Your task to perform on an android device: add a contact in the contacts app Image 0: 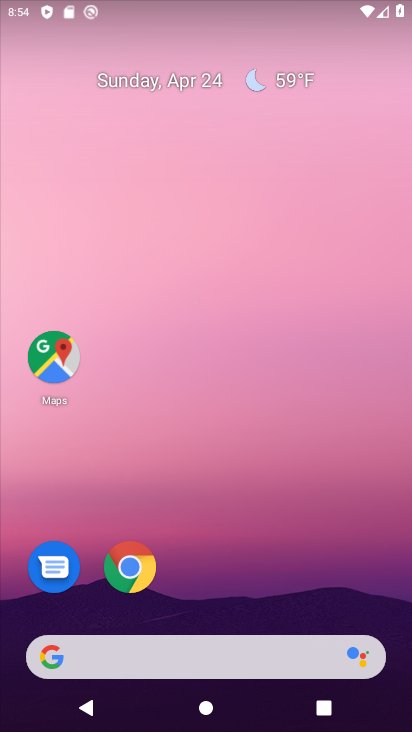
Step 0: drag from (384, 138) to (390, 62)
Your task to perform on an android device: add a contact in the contacts app Image 1: 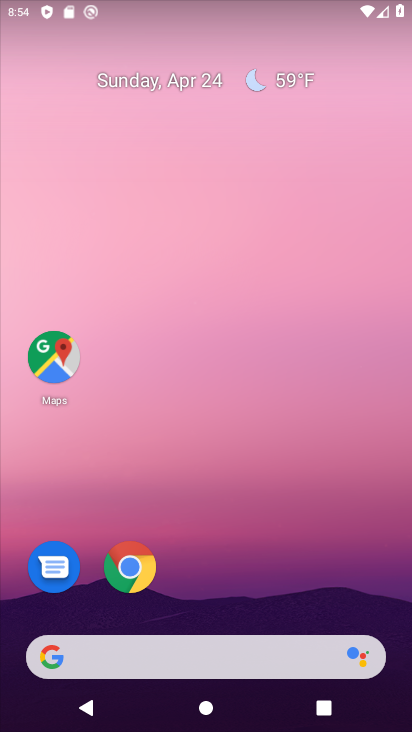
Step 1: click (337, 187)
Your task to perform on an android device: add a contact in the contacts app Image 2: 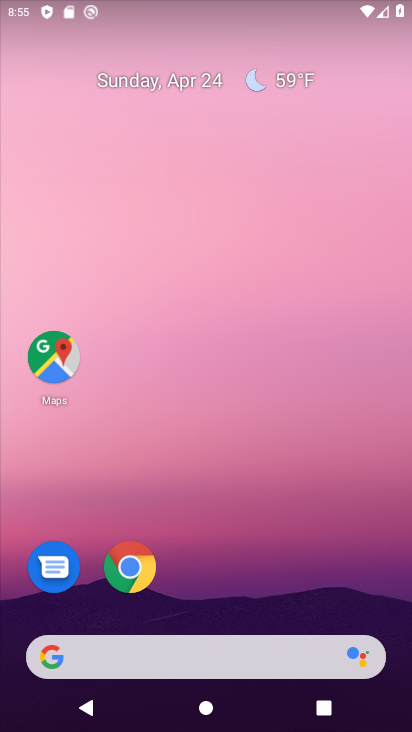
Step 2: drag from (405, 50) to (384, 4)
Your task to perform on an android device: add a contact in the contacts app Image 3: 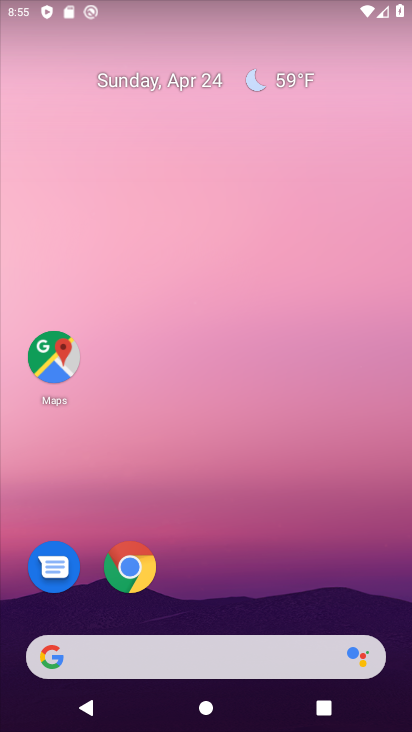
Step 3: drag from (387, 598) to (351, 131)
Your task to perform on an android device: add a contact in the contacts app Image 4: 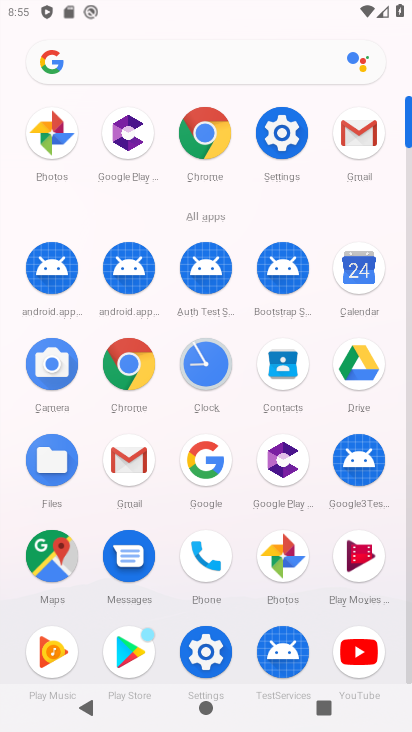
Step 4: click (280, 371)
Your task to perform on an android device: add a contact in the contacts app Image 5: 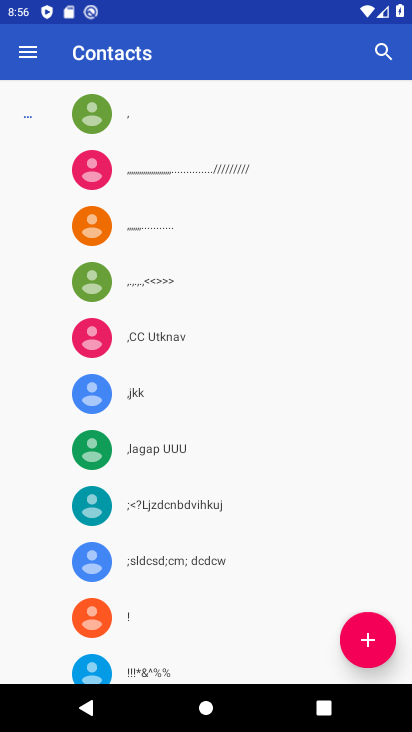
Step 5: click (365, 646)
Your task to perform on an android device: add a contact in the contacts app Image 6: 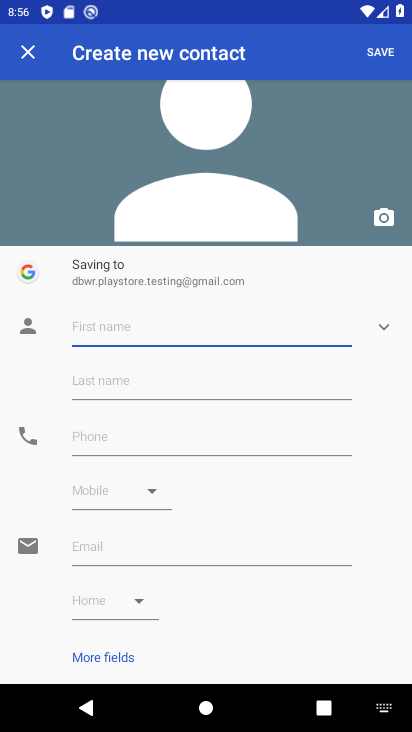
Step 6: type "fhhffjfkfkhjfk"
Your task to perform on an android device: add a contact in the contacts app Image 7: 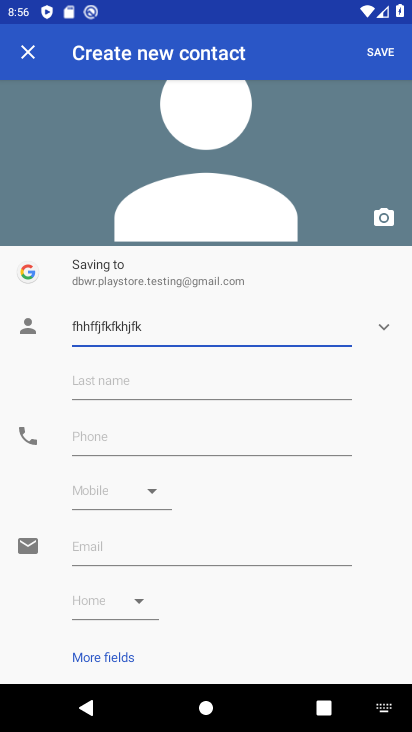
Step 7: click (157, 386)
Your task to perform on an android device: add a contact in the contacts app Image 8: 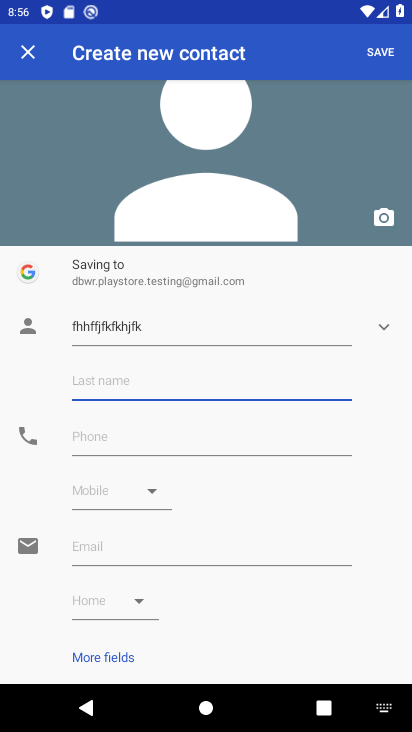
Step 8: type "bhfkjfkjfekk"
Your task to perform on an android device: add a contact in the contacts app Image 9: 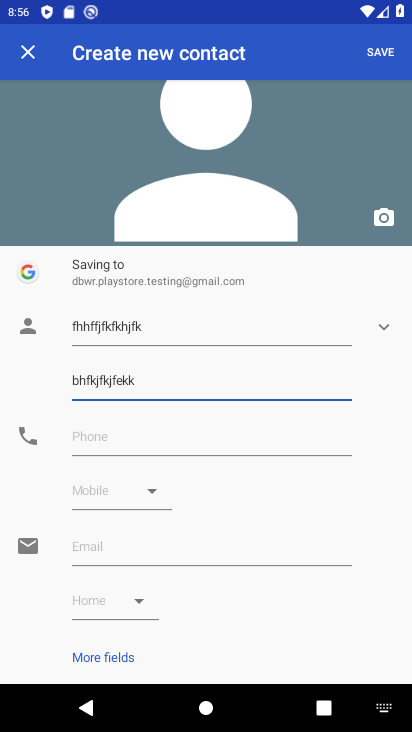
Step 9: click (153, 431)
Your task to perform on an android device: add a contact in the contacts app Image 10: 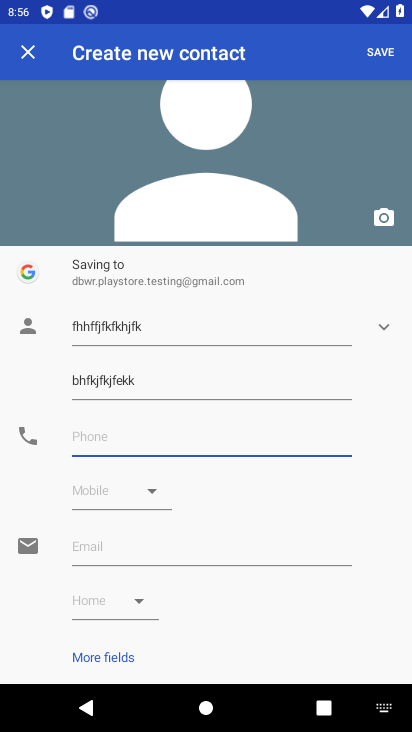
Step 10: type "65726575785"
Your task to perform on an android device: add a contact in the contacts app Image 11: 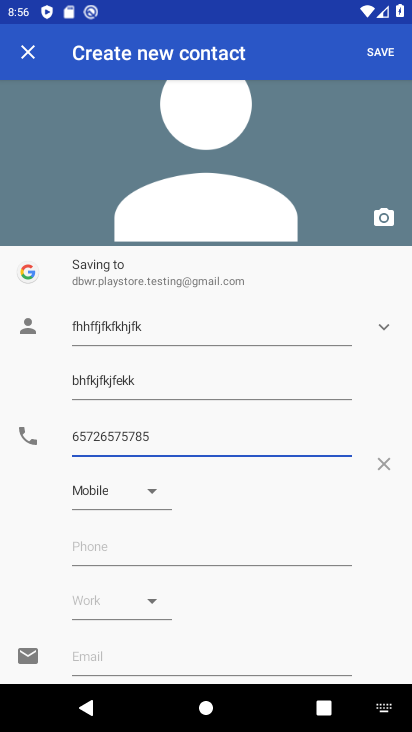
Step 11: click (388, 49)
Your task to perform on an android device: add a contact in the contacts app Image 12: 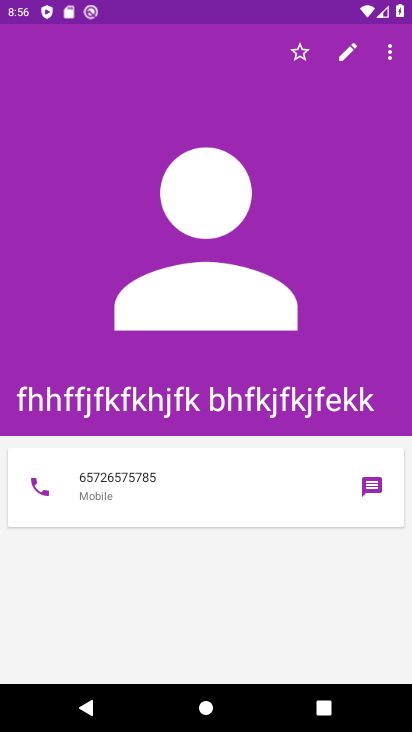
Step 12: task complete